Your task to perform on an android device: Is it going to rain this weekend? Image 0: 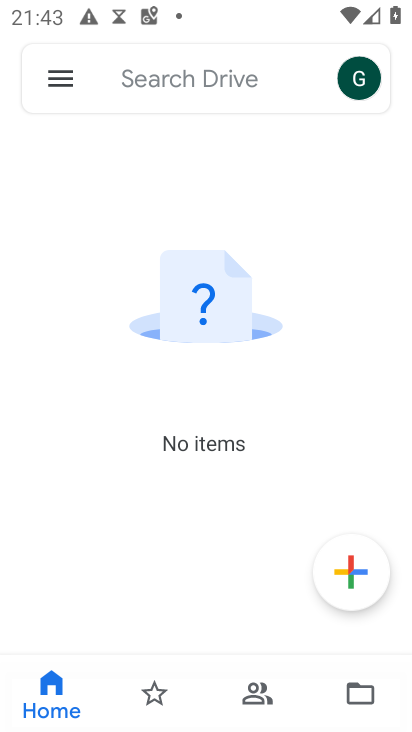
Step 0: press home button
Your task to perform on an android device: Is it going to rain this weekend? Image 1: 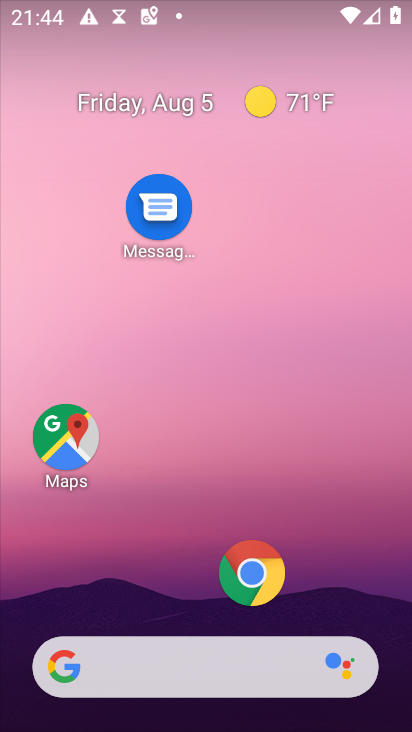
Step 1: drag from (179, 604) to (184, 87)
Your task to perform on an android device: Is it going to rain this weekend? Image 2: 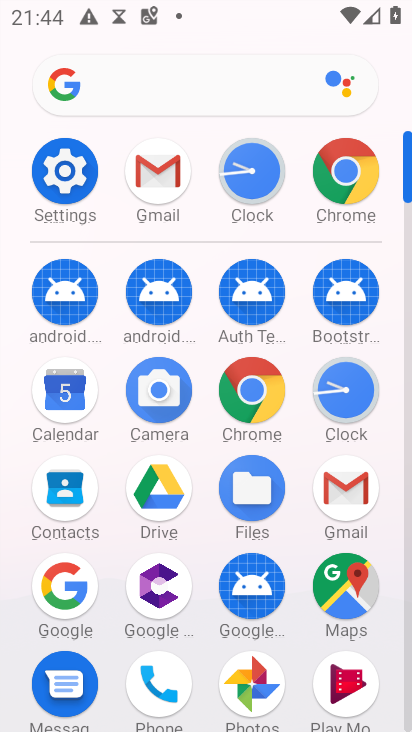
Step 2: click (185, 79)
Your task to perform on an android device: Is it going to rain this weekend? Image 3: 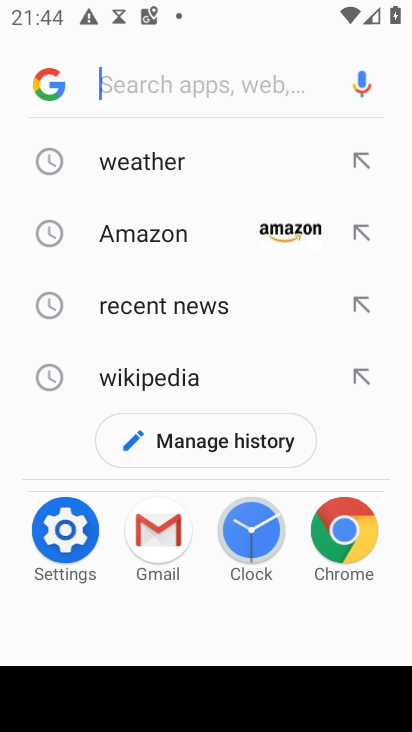
Step 3: click (183, 146)
Your task to perform on an android device: Is it going to rain this weekend? Image 4: 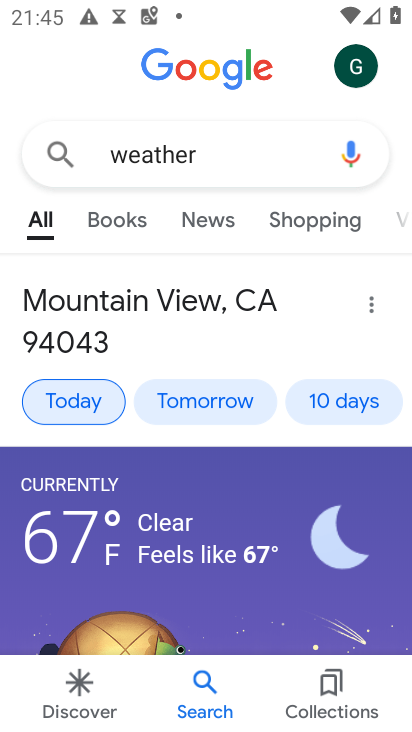
Step 4: drag from (245, 515) to (227, 253)
Your task to perform on an android device: Is it going to rain this weekend? Image 5: 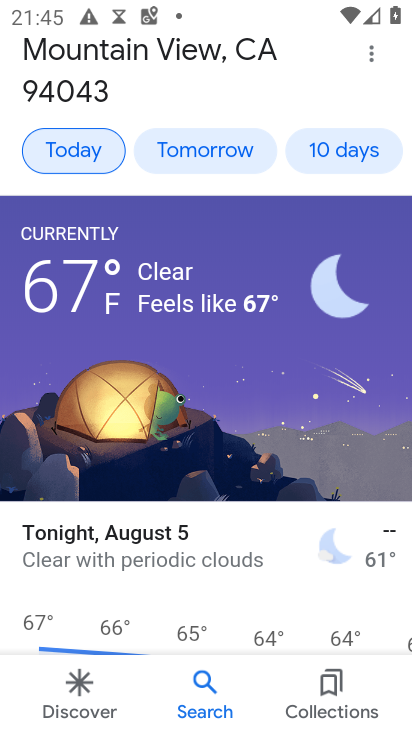
Step 5: click (329, 147)
Your task to perform on an android device: Is it going to rain this weekend? Image 6: 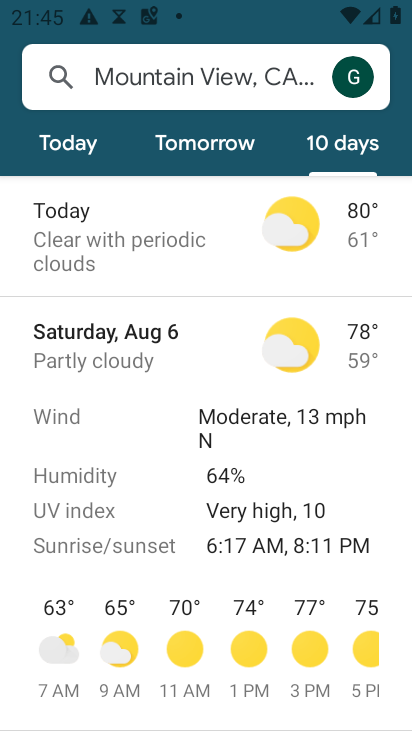
Step 6: task complete